Your task to perform on an android device: Search for seafood restaurants on Google Maps Image 0: 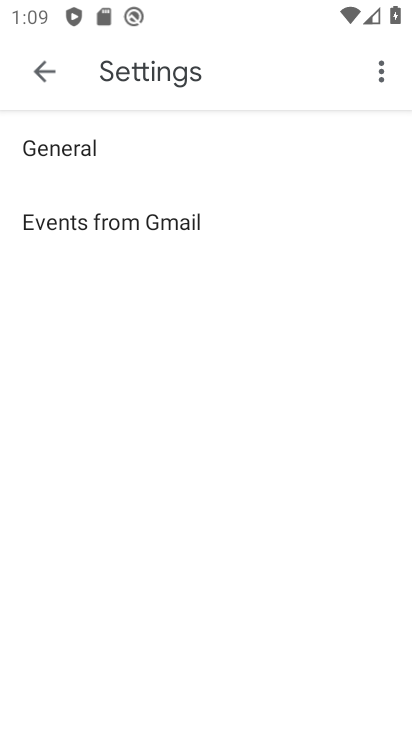
Step 0: press home button
Your task to perform on an android device: Search for seafood restaurants on Google Maps Image 1: 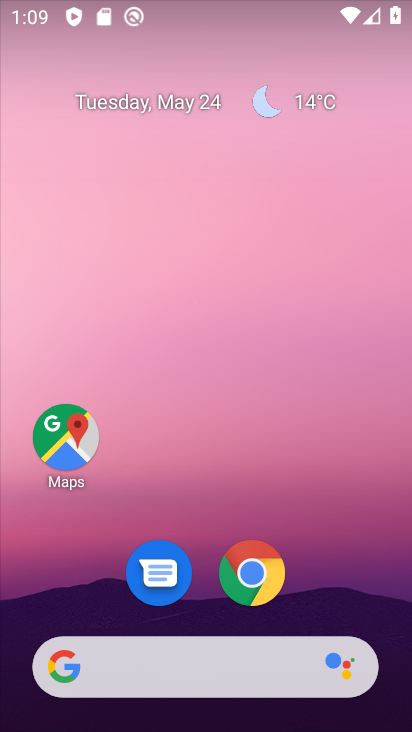
Step 1: click (45, 433)
Your task to perform on an android device: Search for seafood restaurants on Google Maps Image 2: 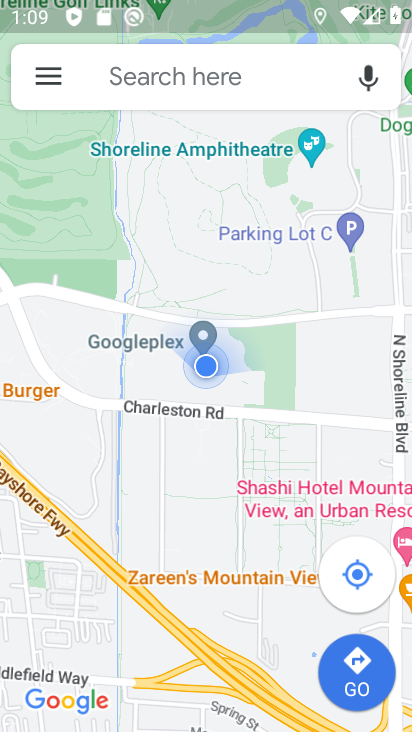
Step 2: click (113, 91)
Your task to perform on an android device: Search for seafood restaurants on Google Maps Image 3: 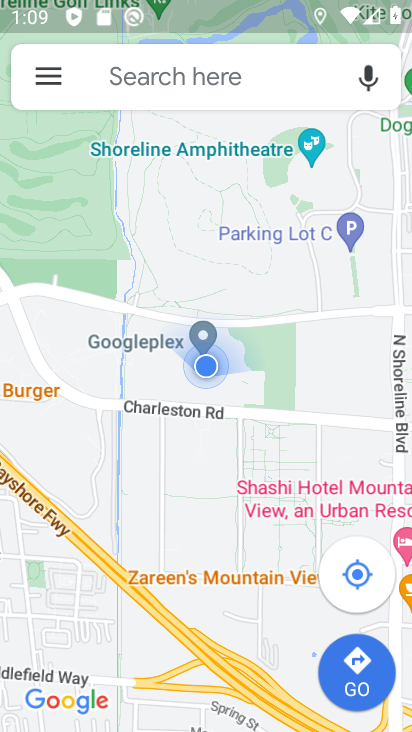
Step 3: click (100, 77)
Your task to perform on an android device: Search for seafood restaurants on Google Maps Image 4: 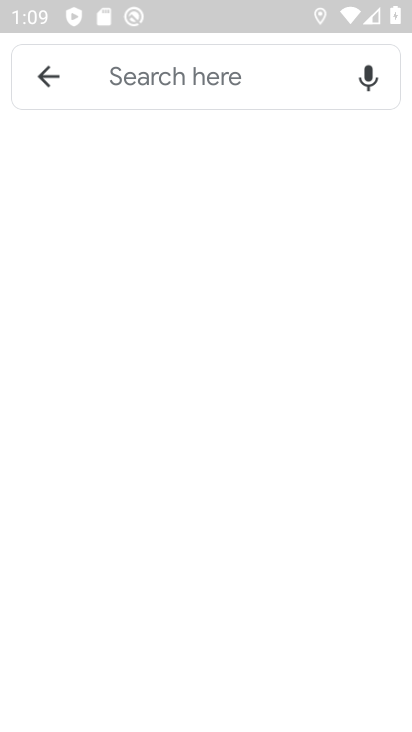
Step 4: click (101, 77)
Your task to perform on an android device: Search for seafood restaurants on Google Maps Image 5: 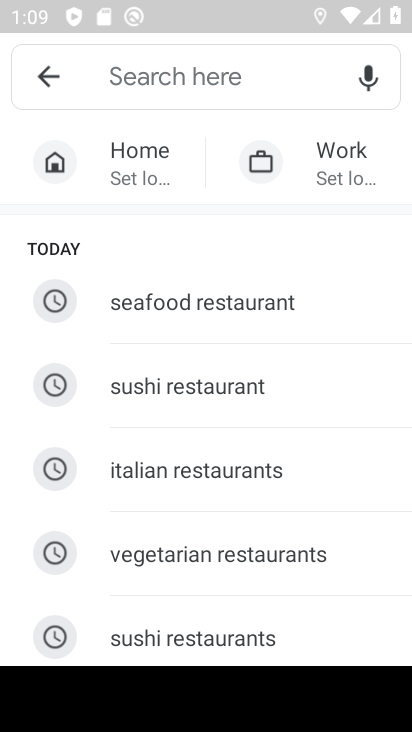
Step 5: click (242, 302)
Your task to perform on an android device: Search for seafood restaurants on Google Maps Image 6: 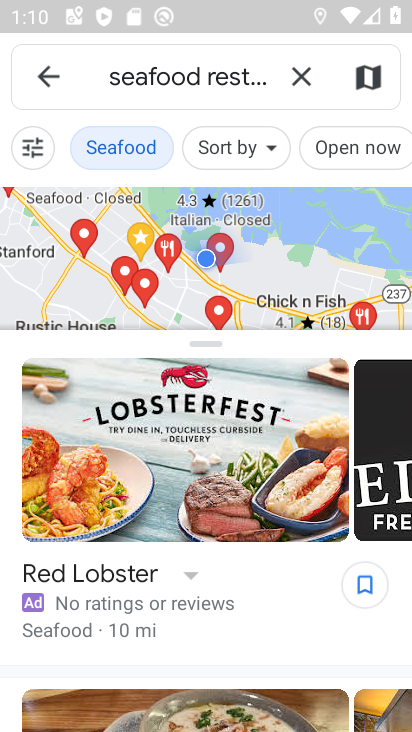
Step 6: task complete